Your task to perform on an android device: move a message to another label in the gmail app Image 0: 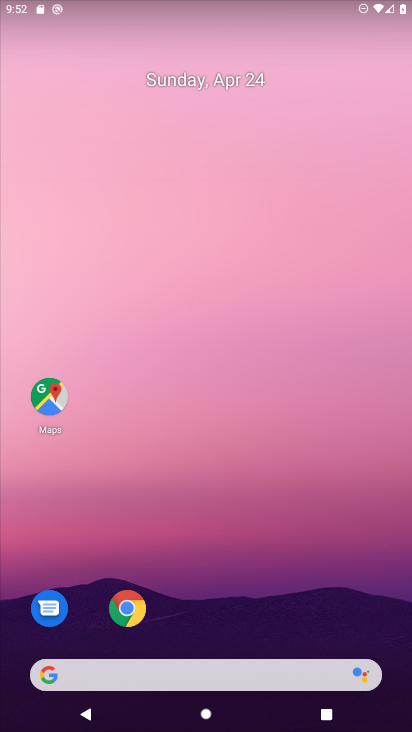
Step 0: drag from (227, 701) to (183, 88)
Your task to perform on an android device: move a message to another label in the gmail app Image 1: 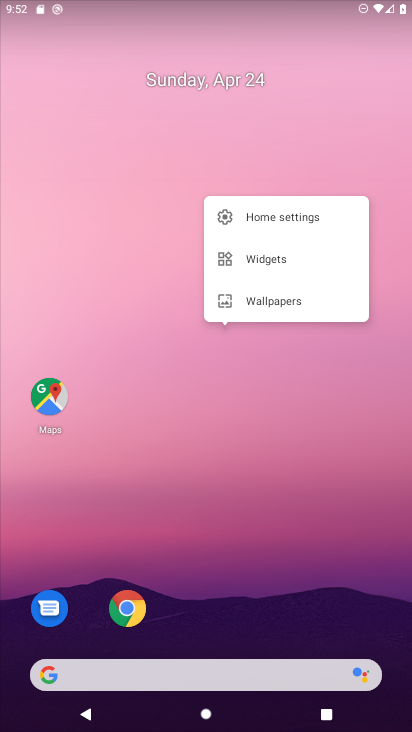
Step 1: click (174, 377)
Your task to perform on an android device: move a message to another label in the gmail app Image 2: 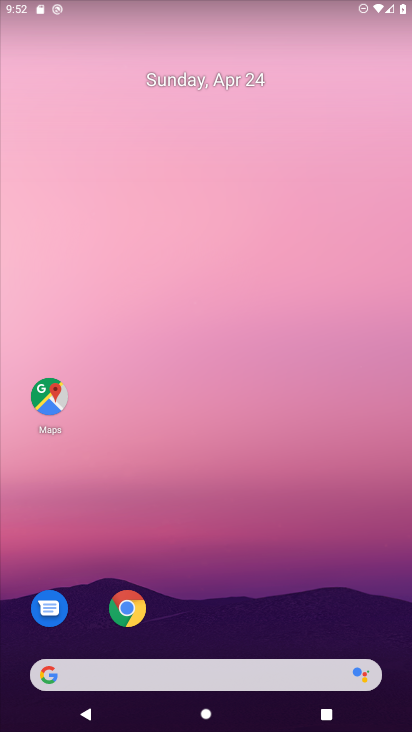
Step 2: drag from (257, 697) to (274, 122)
Your task to perform on an android device: move a message to another label in the gmail app Image 3: 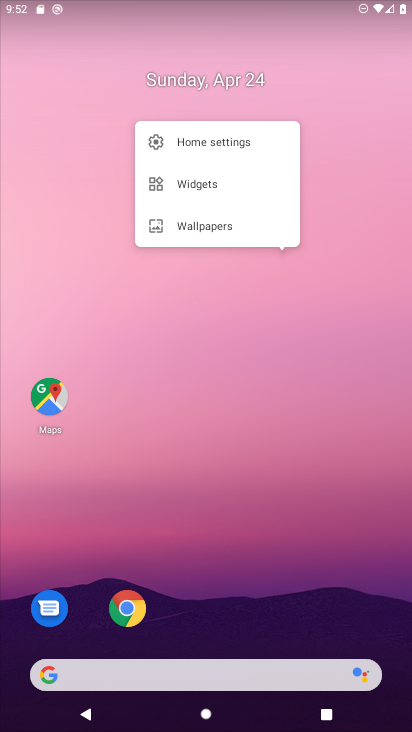
Step 3: click (281, 362)
Your task to perform on an android device: move a message to another label in the gmail app Image 4: 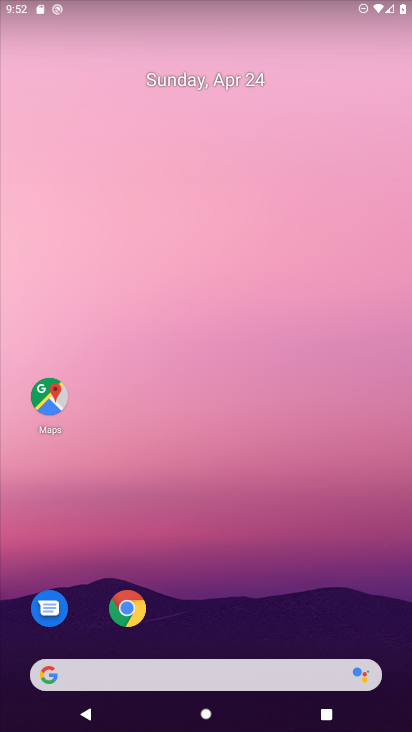
Step 4: drag from (256, 703) to (316, 331)
Your task to perform on an android device: move a message to another label in the gmail app Image 5: 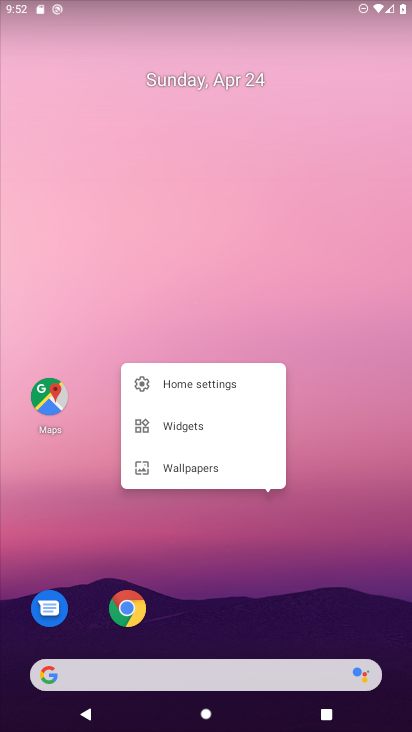
Step 5: click (318, 332)
Your task to perform on an android device: move a message to another label in the gmail app Image 6: 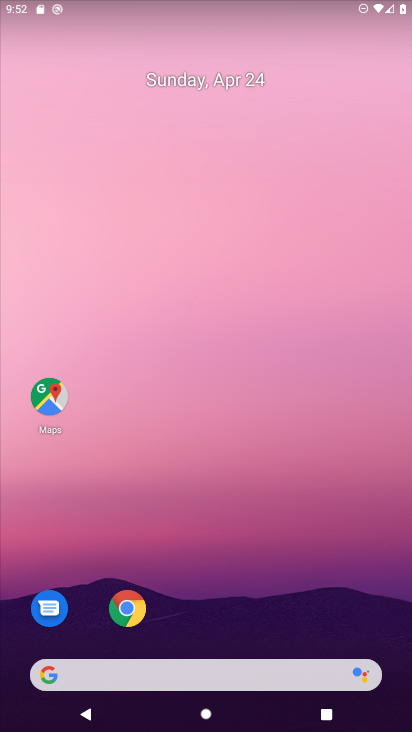
Step 6: drag from (221, 691) to (234, 362)
Your task to perform on an android device: move a message to another label in the gmail app Image 7: 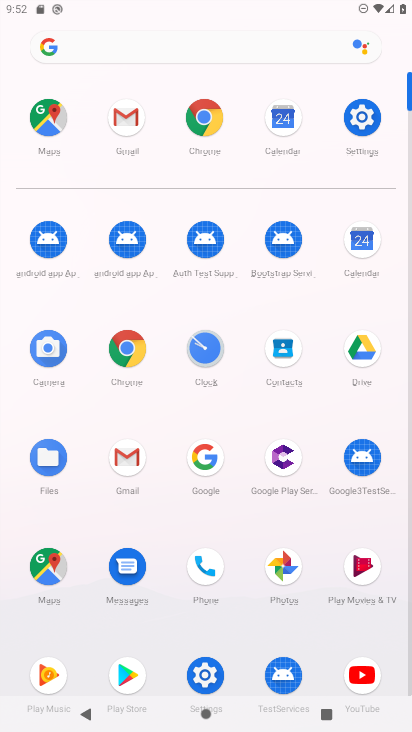
Step 7: click (134, 475)
Your task to perform on an android device: move a message to another label in the gmail app Image 8: 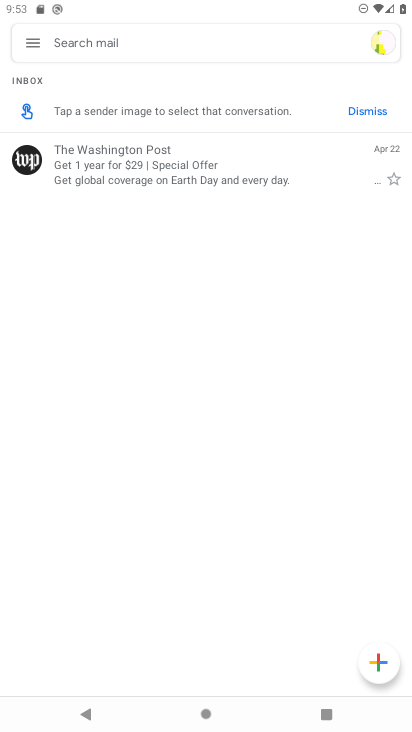
Step 8: click (37, 48)
Your task to perform on an android device: move a message to another label in the gmail app Image 9: 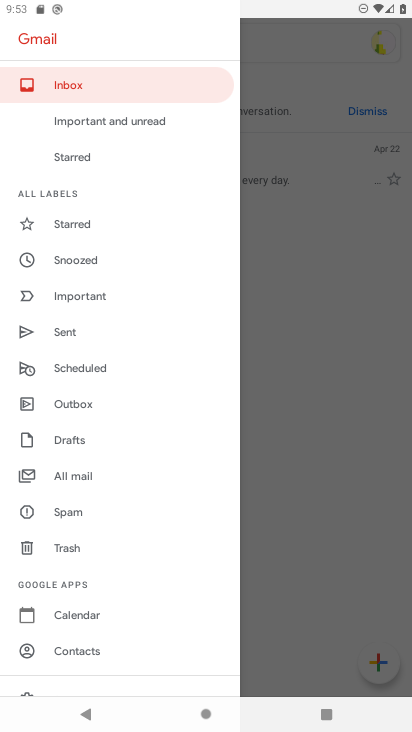
Step 9: click (65, 680)
Your task to perform on an android device: move a message to another label in the gmail app Image 10: 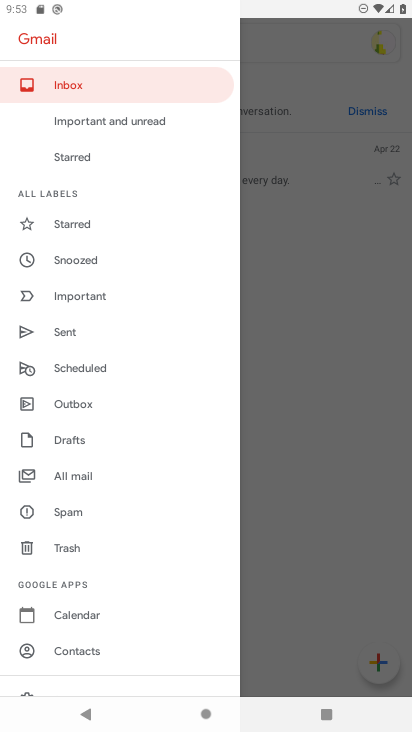
Step 10: click (66, 682)
Your task to perform on an android device: move a message to another label in the gmail app Image 11: 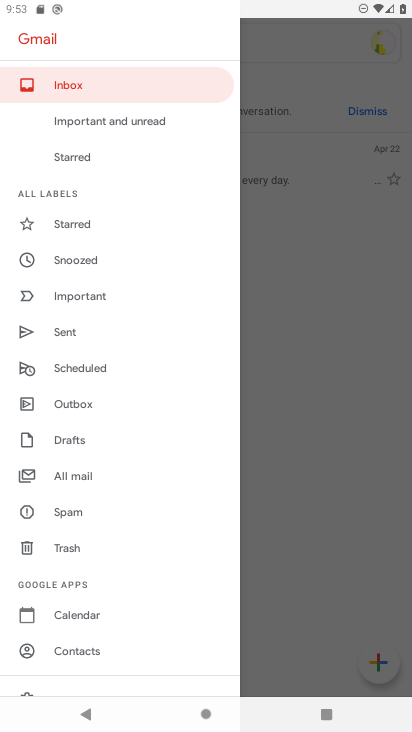
Step 11: click (67, 690)
Your task to perform on an android device: move a message to another label in the gmail app Image 12: 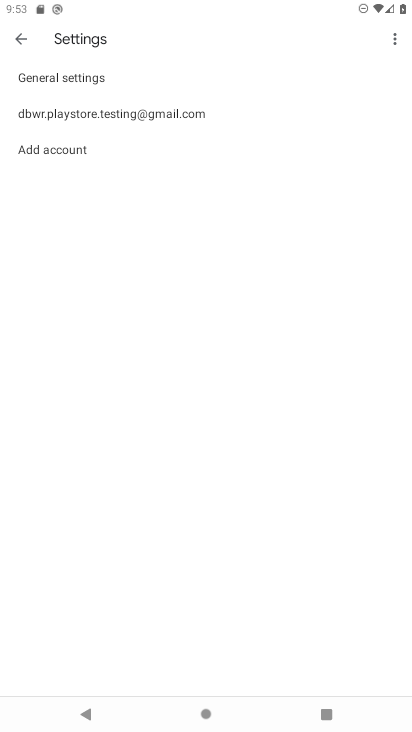
Step 12: click (148, 111)
Your task to perform on an android device: move a message to another label in the gmail app Image 13: 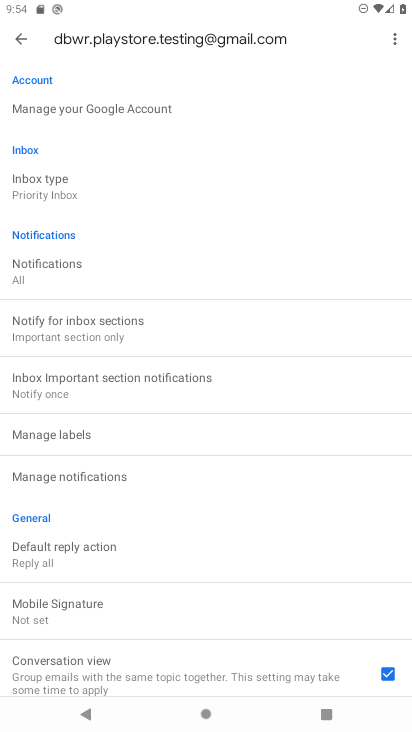
Step 13: click (71, 437)
Your task to perform on an android device: move a message to another label in the gmail app Image 14: 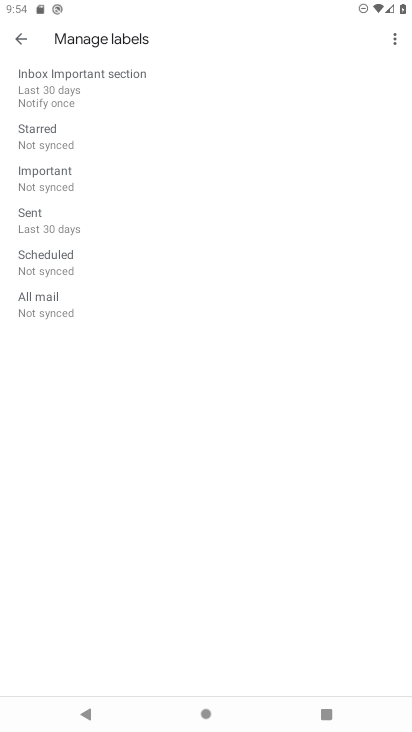
Step 14: click (101, 186)
Your task to perform on an android device: move a message to another label in the gmail app Image 15: 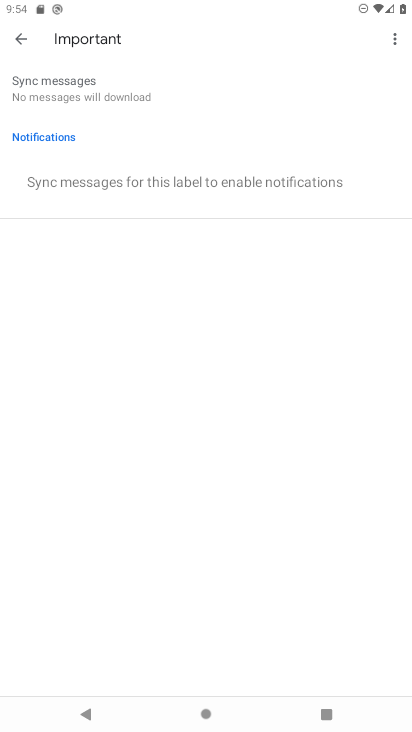
Step 15: task complete